Your task to perform on an android device: turn pop-ups off in chrome Image 0: 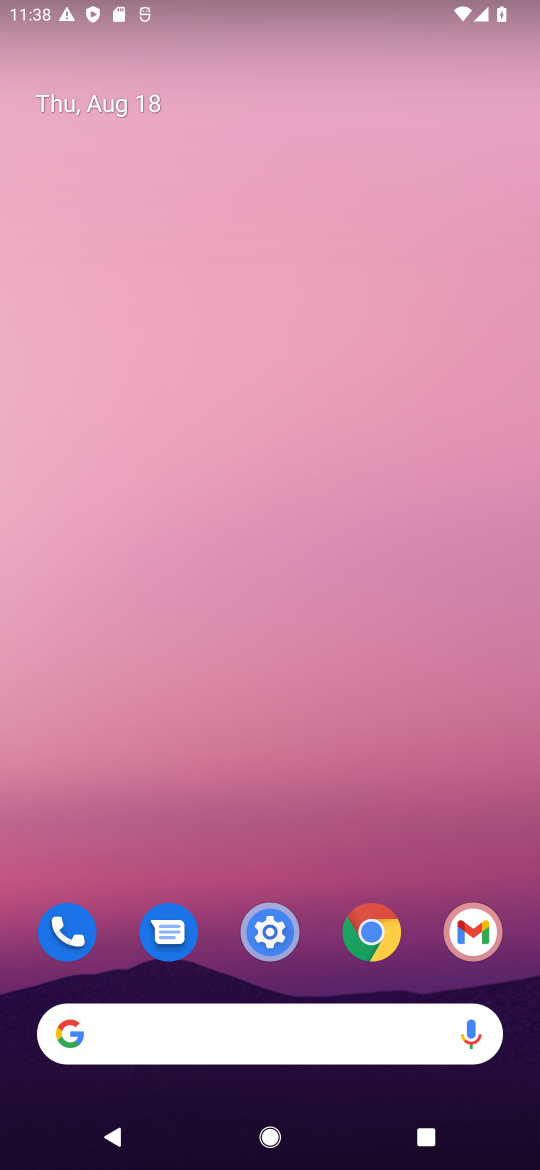
Step 0: click (376, 936)
Your task to perform on an android device: turn pop-ups off in chrome Image 1: 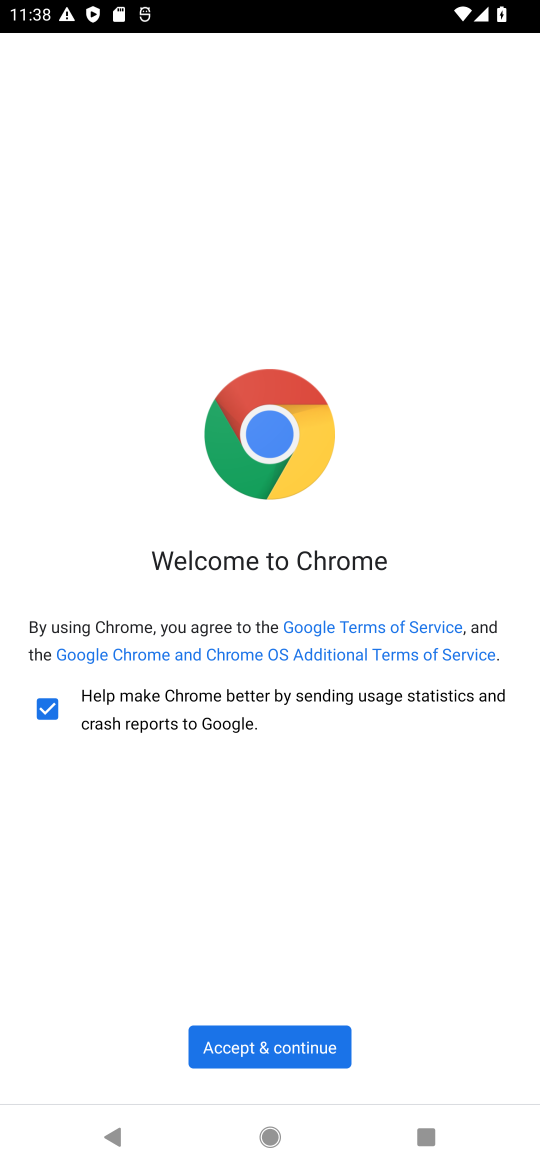
Step 1: click (262, 1043)
Your task to perform on an android device: turn pop-ups off in chrome Image 2: 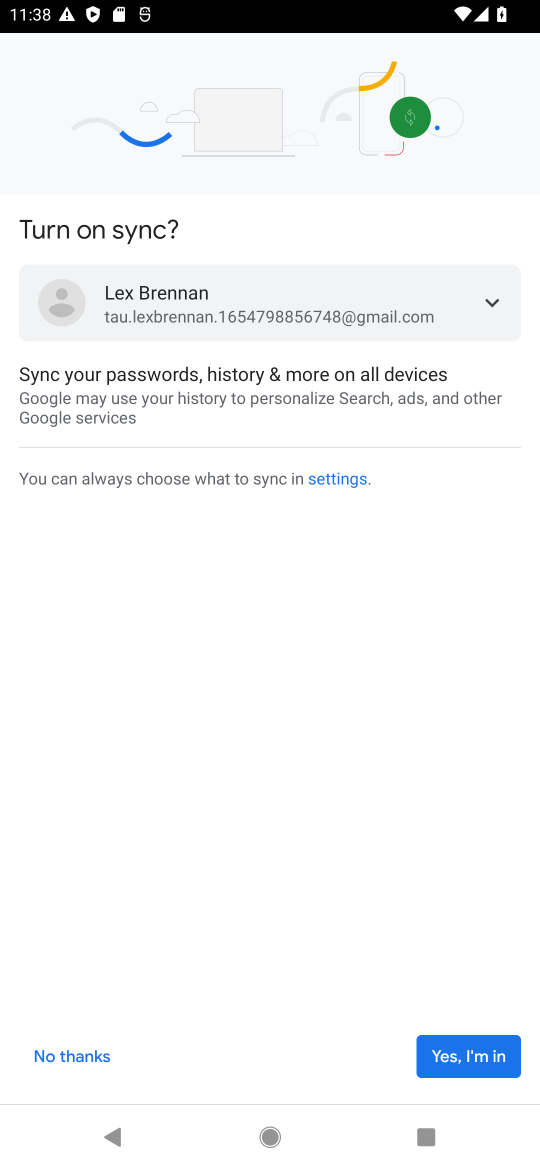
Step 2: click (441, 1043)
Your task to perform on an android device: turn pop-ups off in chrome Image 3: 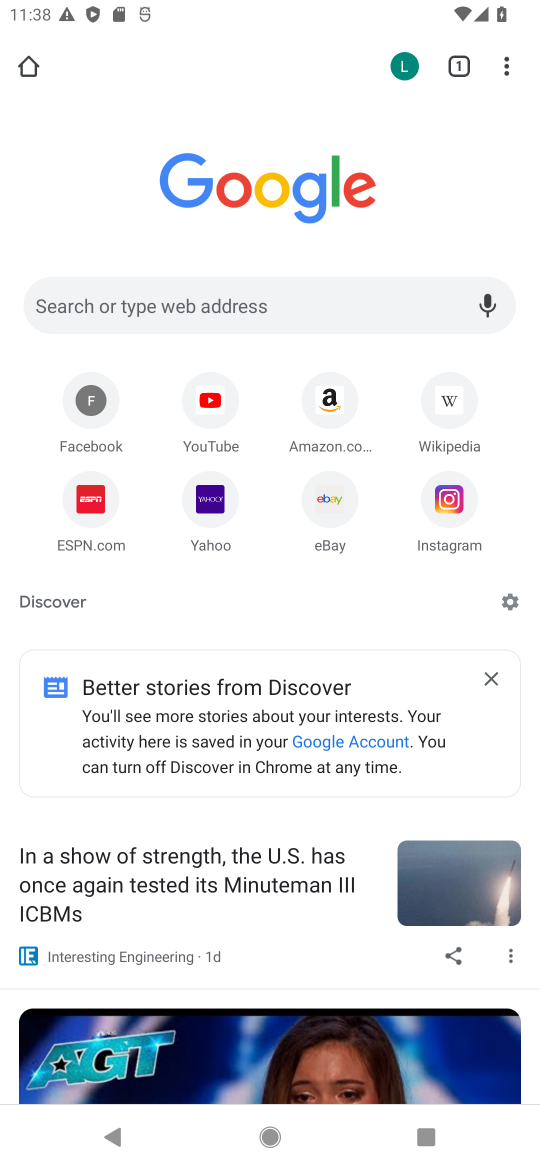
Step 3: click (504, 48)
Your task to perform on an android device: turn pop-ups off in chrome Image 4: 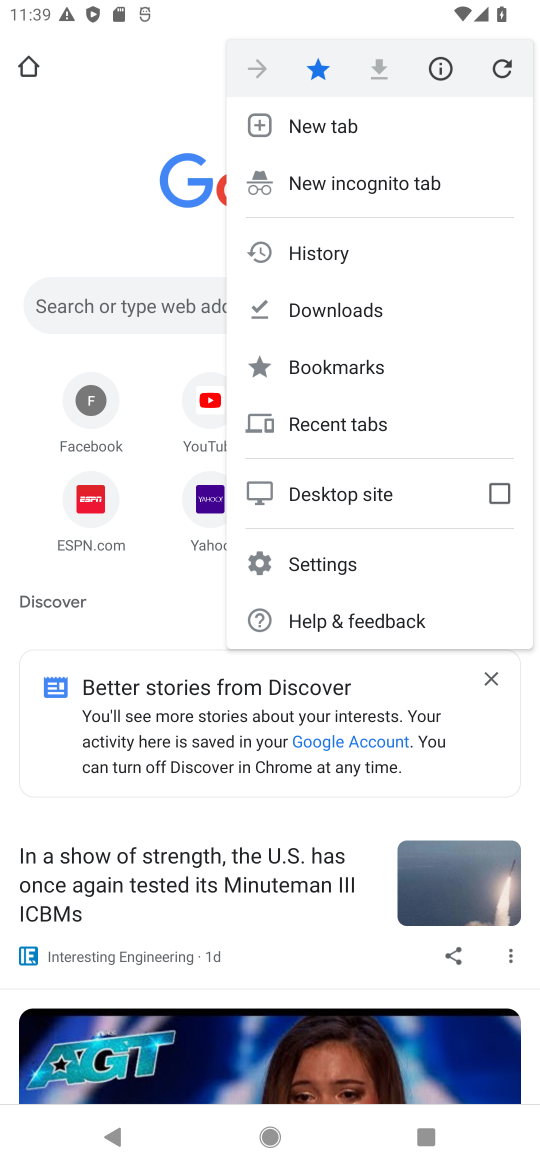
Step 4: click (316, 561)
Your task to perform on an android device: turn pop-ups off in chrome Image 5: 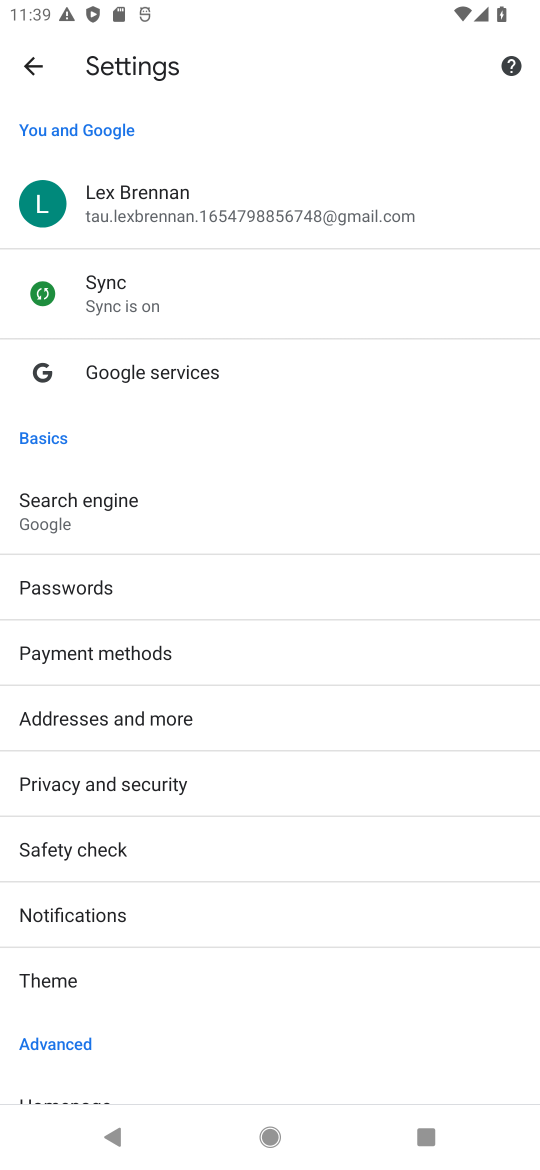
Step 5: drag from (288, 980) to (232, 234)
Your task to perform on an android device: turn pop-ups off in chrome Image 6: 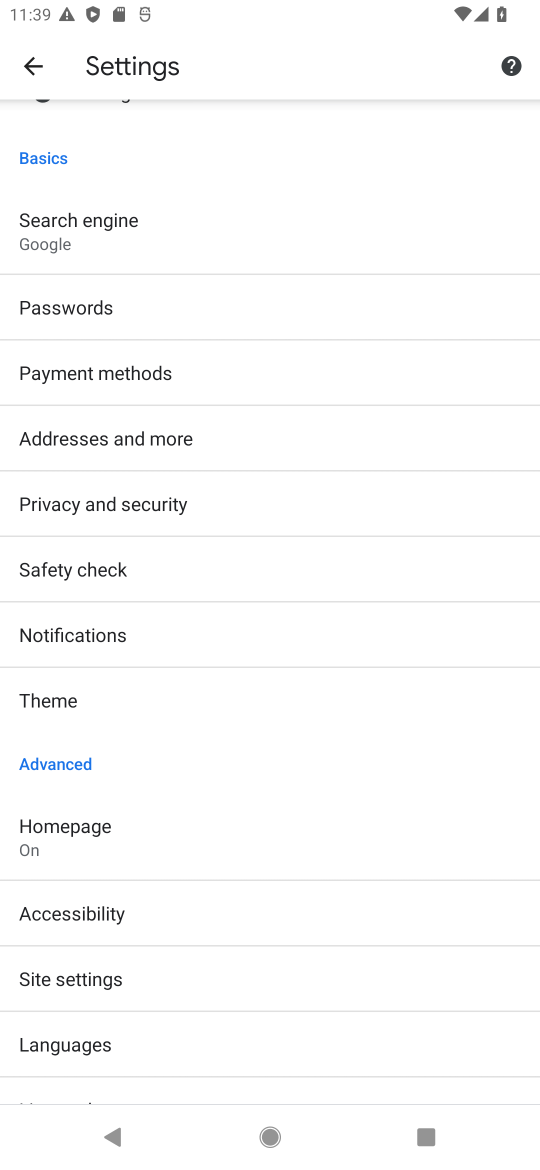
Step 6: click (77, 976)
Your task to perform on an android device: turn pop-ups off in chrome Image 7: 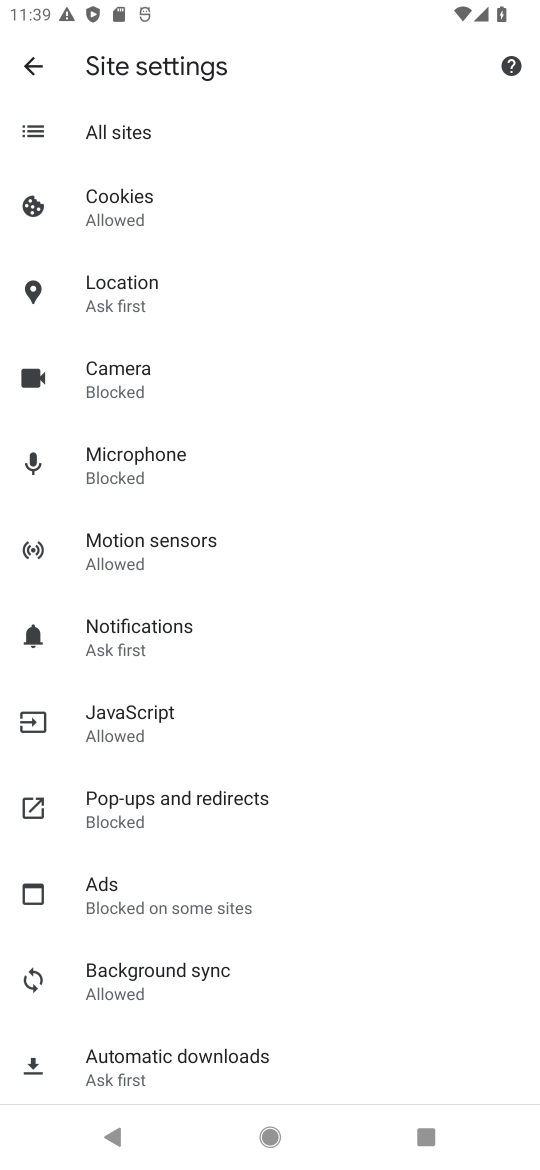
Step 7: click (139, 802)
Your task to perform on an android device: turn pop-ups off in chrome Image 8: 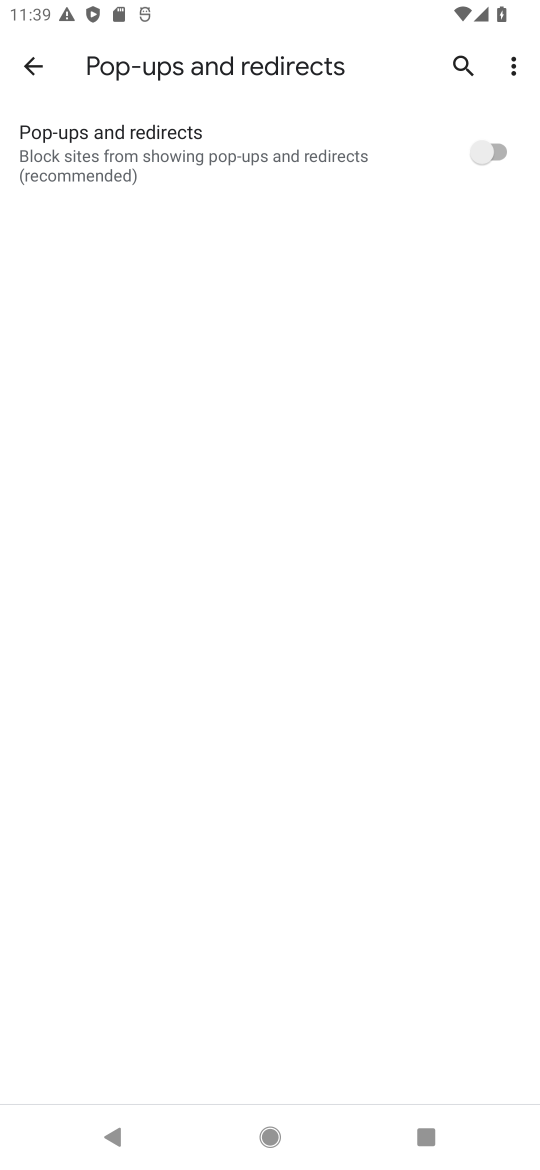
Step 8: task complete